Your task to perform on an android device: Show me popular videos on Youtube Image 0: 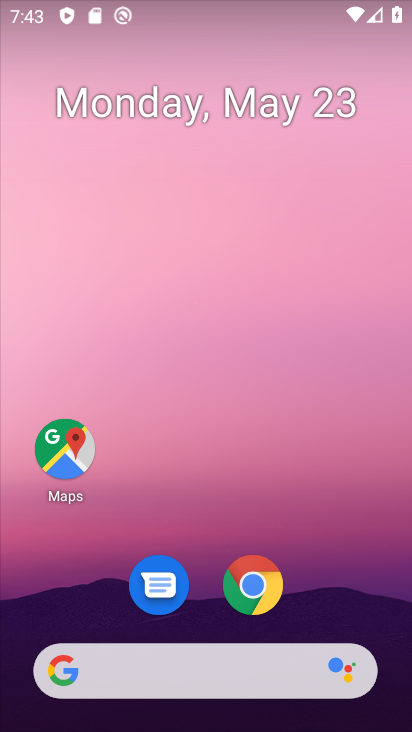
Step 0: drag from (309, 578) to (302, 24)
Your task to perform on an android device: Show me popular videos on Youtube Image 1: 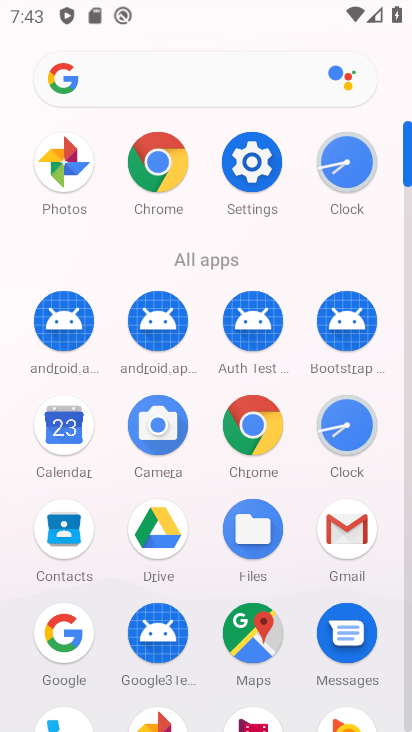
Step 1: drag from (287, 566) to (319, 166)
Your task to perform on an android device: Show me popular videos on Youtube Image 2: 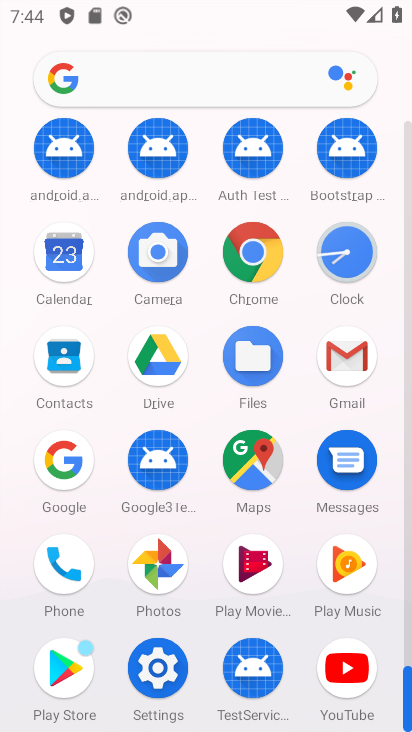
Step 2: click (343, 672)
Your task to perform on an android device: Show me popular videos on Youtube Image 3: 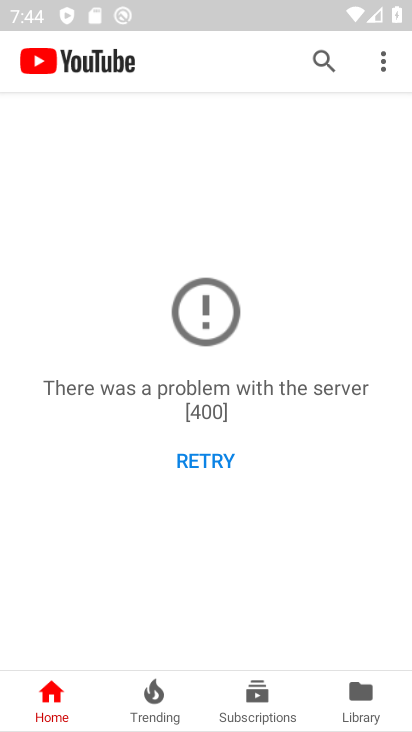
Step 3: click (217, 455)
Your task to perform on an android device: Show me popular videos on Youtube Image 4: 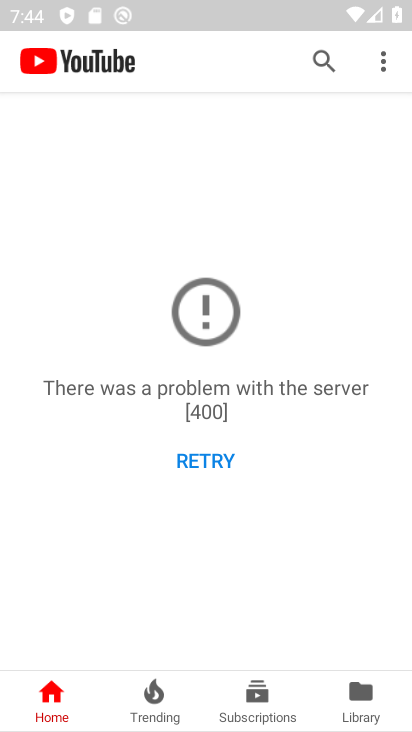
Step 4: click (217, 455)
Your task to perform on an android device: Show me popular videos on Youtube Image 5: 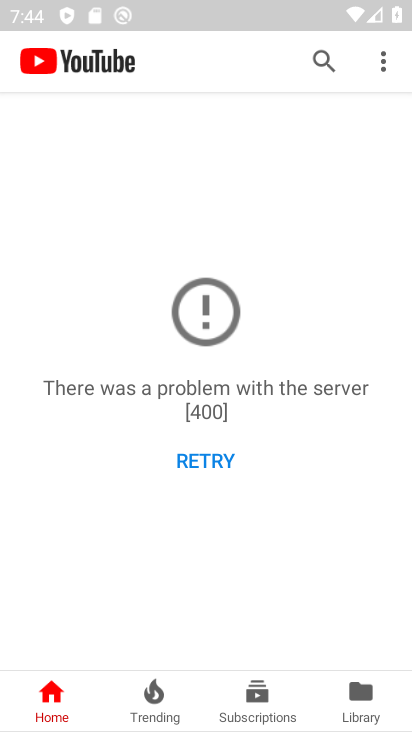
Step 5: click (201, 445)
Your task to perform on an android device: Show me popular videos on Youtube Image 6: 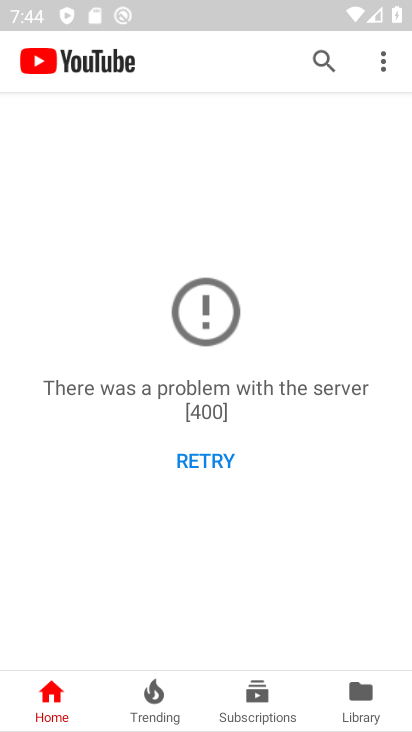
Step 6: task complete